Your task to perform on an android device: Open settings on Google Maps Image 0: 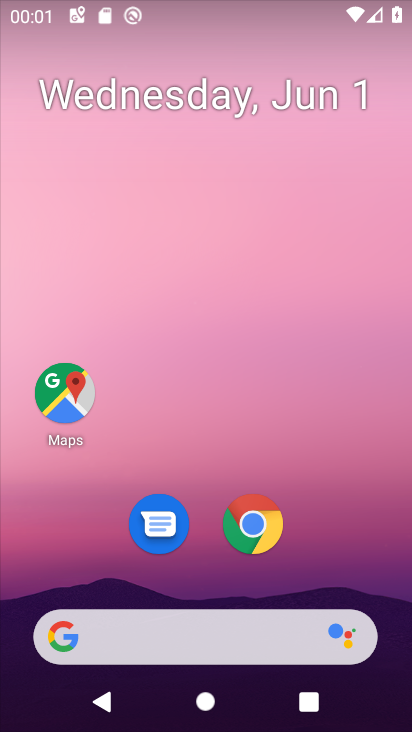
Step 0: click (71, 394)
Your task to perform on an android device: Open settings on Google Maps Image 1: 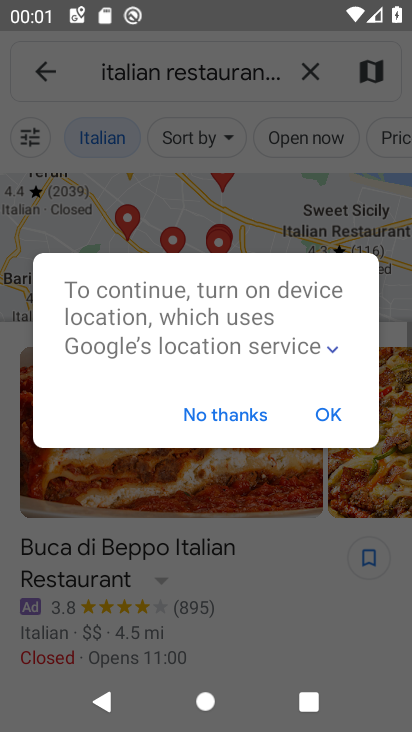
Step 1: click (314, 63)
Your task to perform on an android device: Open settings on Google Maps Image 2: 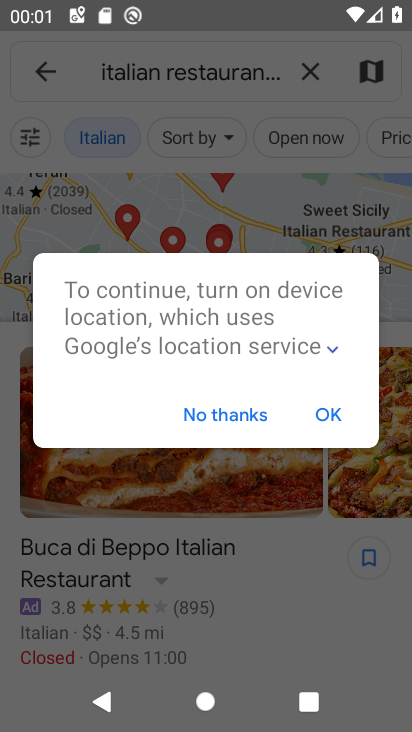
Step 2: click (328, 407)
Your task to perform on an android device: Open settings on Google Maps Image 3: 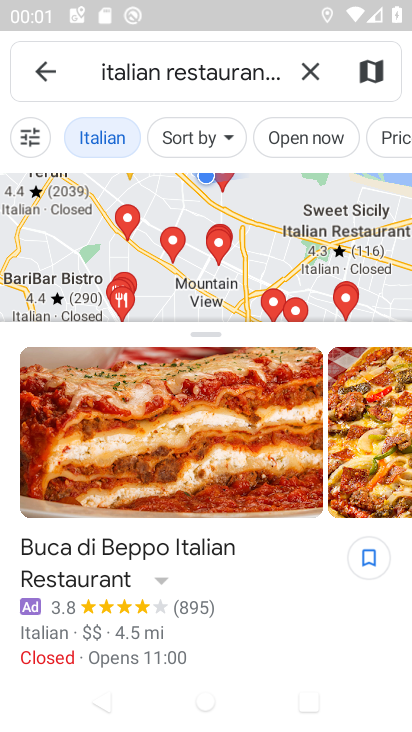
Step 3: click (314, 65)
Your task to perform on an android device: Open settings on Google Maps Image 4: 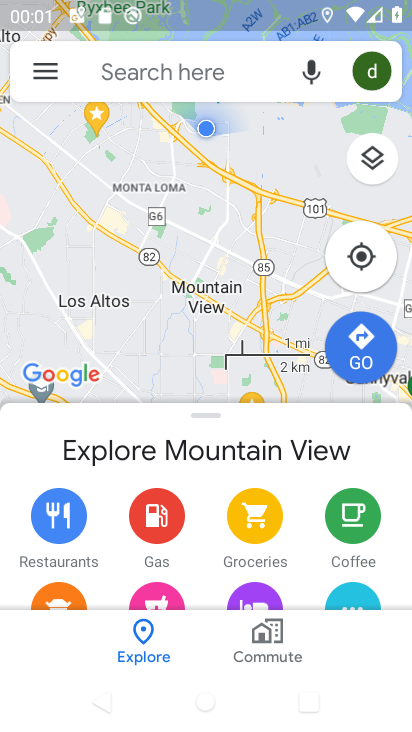
Step 4: click (52, 75)
Your task to perform on an android device: Open settings on Google Maps Image 5: 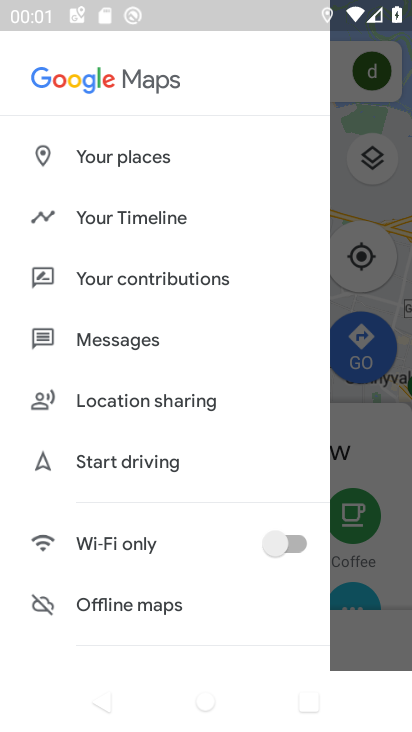
Step 5: drag from (190, 517) to (183, 6)
Your task to perform on an android device: Open settings on Google Maps Image 6: 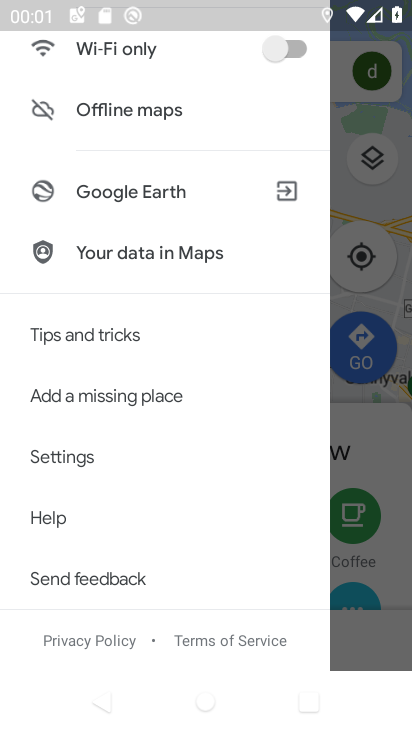
Step 6: click (130, 449)
Your task to perform on an android device: Open settings on Google Maps Image 7: 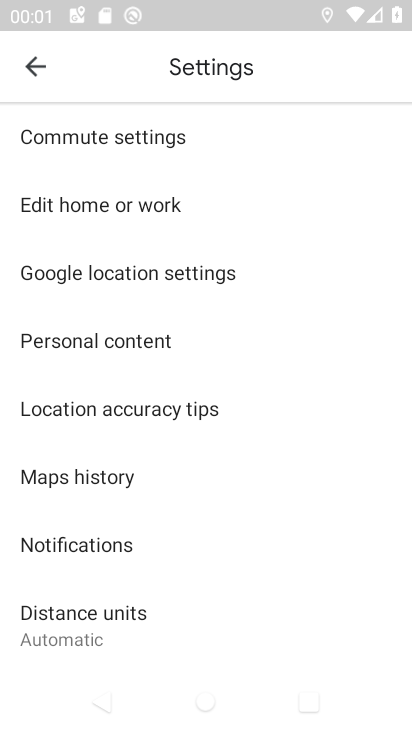
Step 7: task complete